Your task to perform on an android device: turn off priority inbox in the gmail app Image 0: 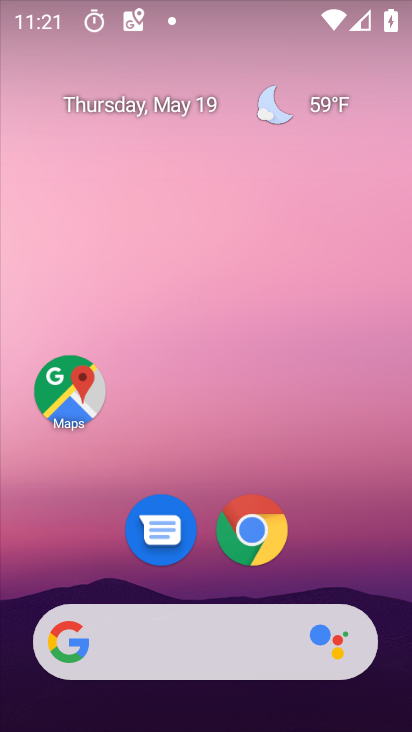
Step 0: drag from (351, 569) to (323, 146)
Your task to perform on an android device: turn off priority inbox in the gmail app Image 1: 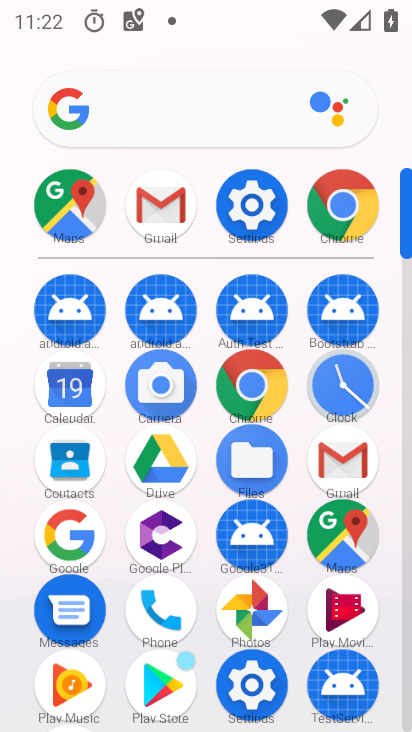
Step 1: click (322, 462)
Your task to perform on an android device: turn off priority inbox in the gmail app Image 2: 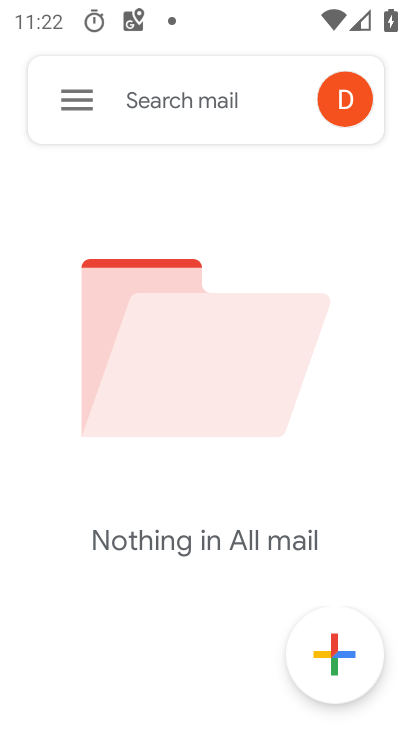
Step 2: click (71, 104)
Your task to perform on an android device: turn off priority inbox in the gmail app Image 3: 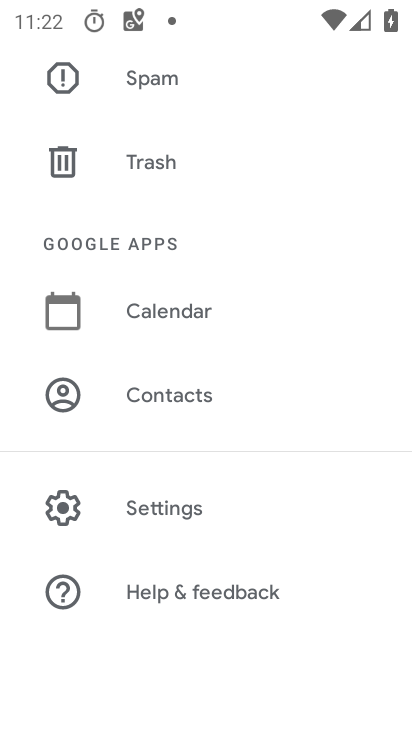
Step 3: drag from (192, 652) to (255, 378)
Your task to perform on an android device: turn off priority inbox in the gmail app Image 4: 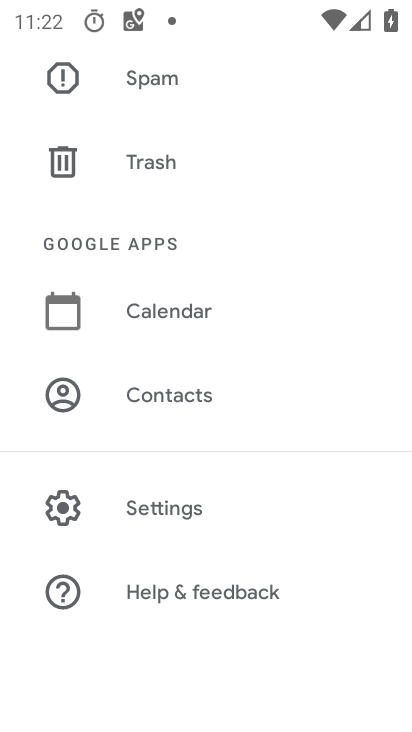
Step 4: click (173, 506)
Your task to perform on an android device: turn off priority inbox in the gmail app Image 5: 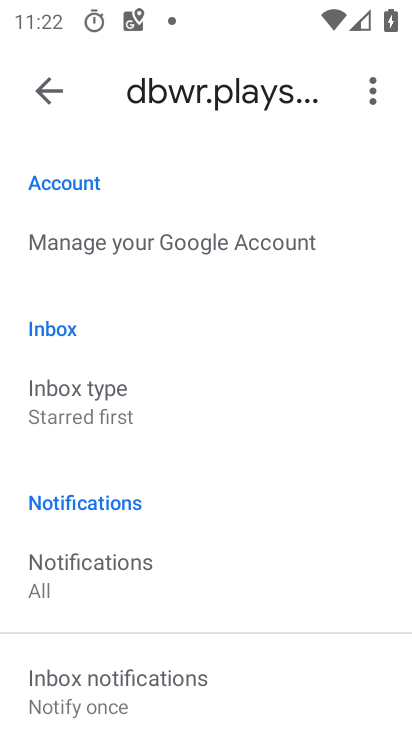
Step 5: click (113, 379)
Your task to perform on an android device: turn off priority inbox in the gmail app Image 6: 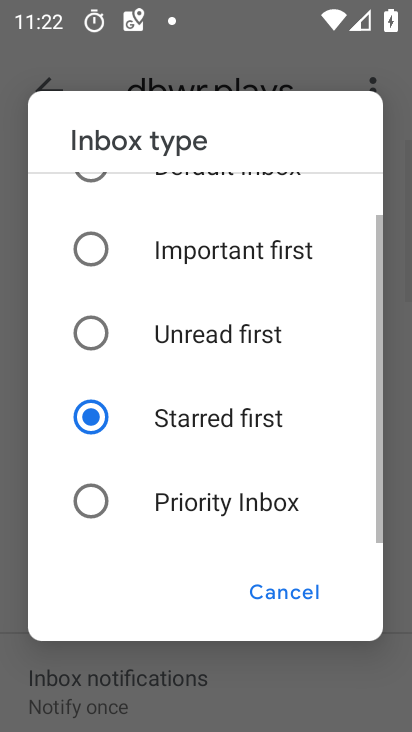
Step 6: drag from (136, 264) to (139, 547)
Your task to perform on an android device: turn off priority inbox in the gmail app Image 7: 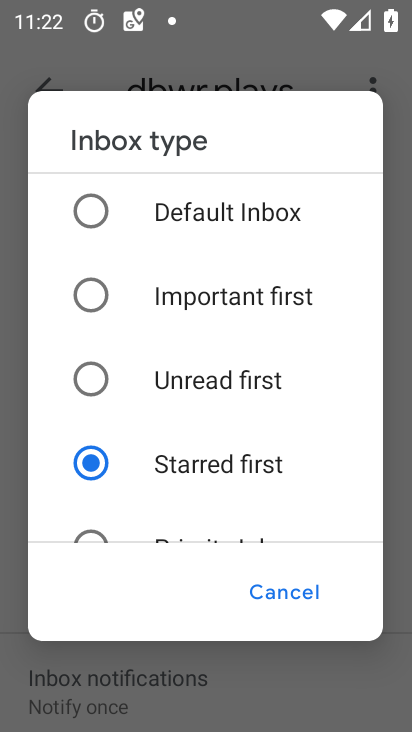
Step 7: click (90, 229)
Your task to perform on an android device: turn off priority inbox in the gmail app Image 8: 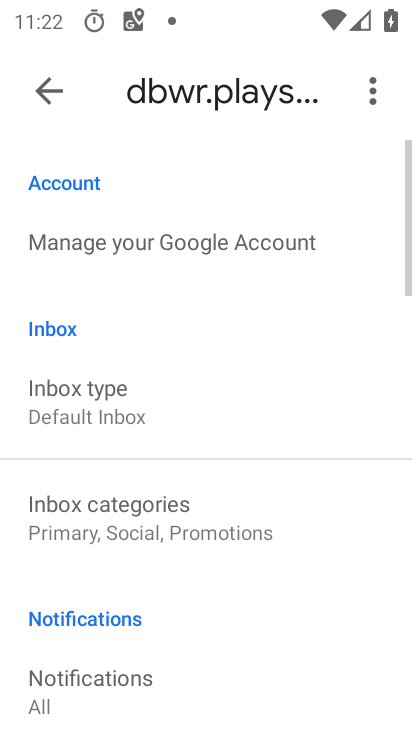
Step 8: task complete